Your task to perform on an android device: turn on the 12-hour format for clock Image 0: 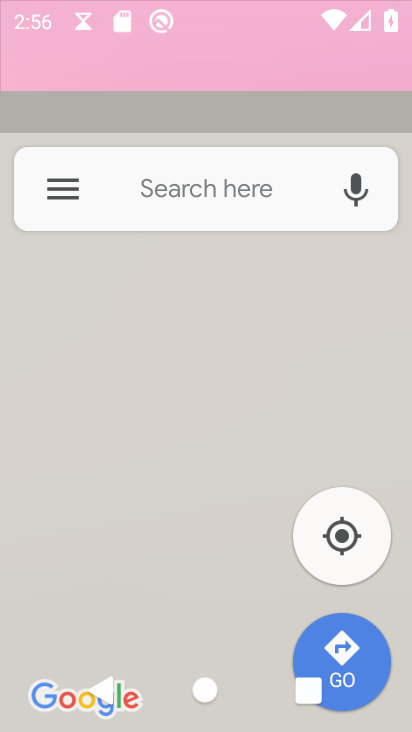
Step 0: click (403, 177)
Your task to perform on an android device: turn on the 12-hour format for clock Image 1: 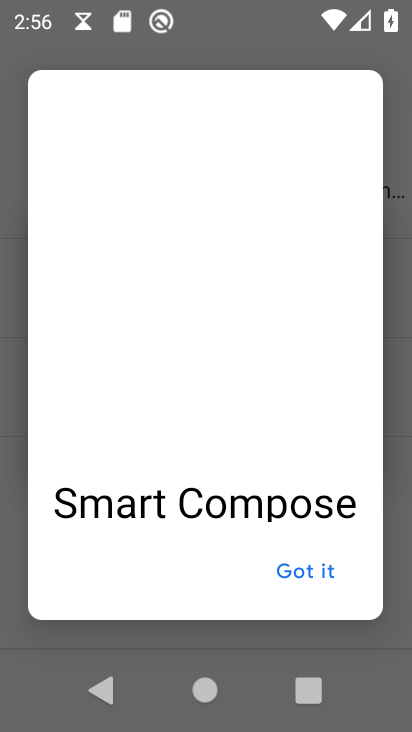
Step 1: press home button
Your task to perform on an android device: turn on the 12-hour format for clock Image 2: 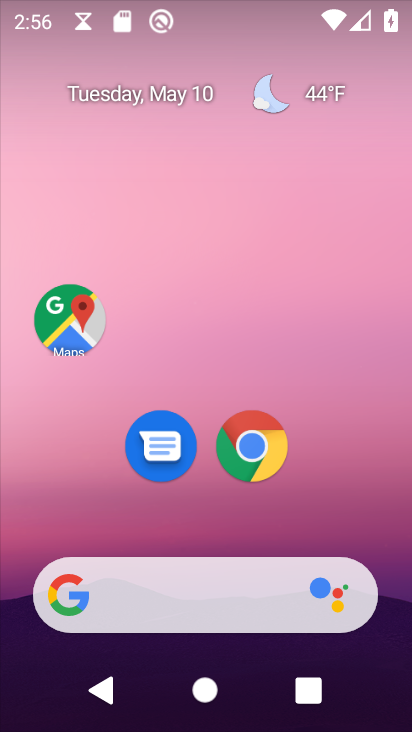
Step 2: drag from (358, 510) to (381, 62)
Your task to perform on an android device: turn on the 12-hour format for clock Image 3: 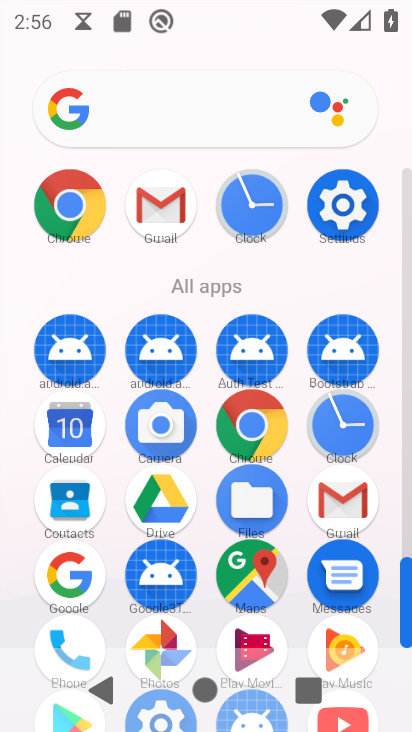
Step 3: click (257, 211)
Your task to perform on an android device: turn on the 12-hour format for clock Image 4: 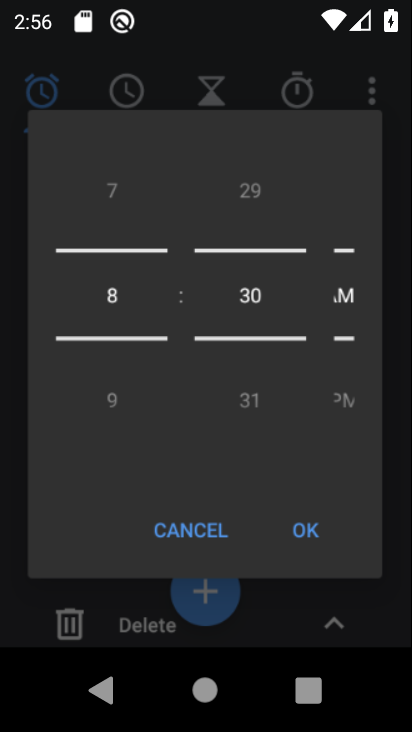
Step 4: click (192, 526)
Your task to perform on an android device: turn on the 12-hour format for clock Image 5: 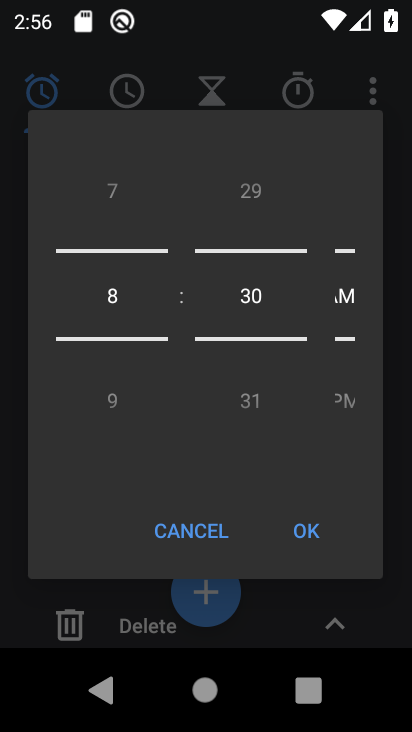
Step 5: click (377, 96)
Your task to perform on an android device: turn on the 12-hour format for clock Image 6: 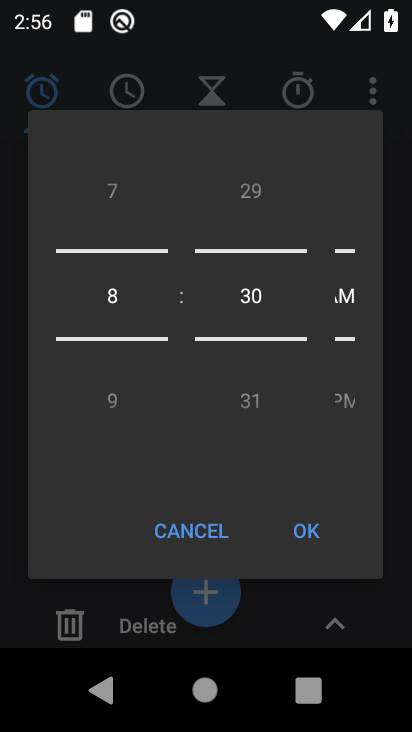
Step 6: click (189, 528)
Your task to perform on an android device: turn on the 12-hour format for clock Image 7: 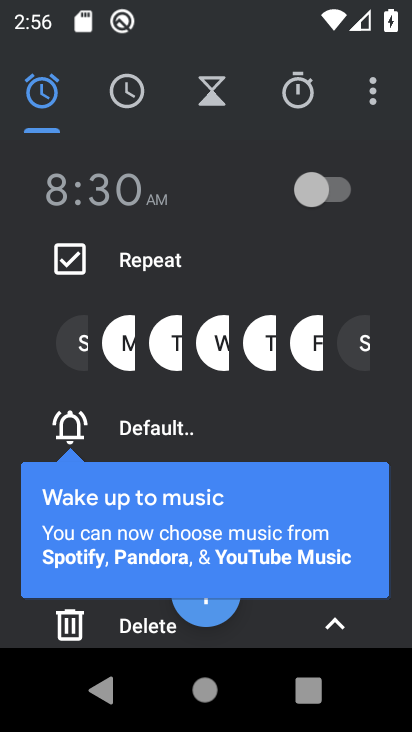
Step 7: click (385, 85)
Your task to perform on an android device: turn on the 12-hour format for clock Image 8: 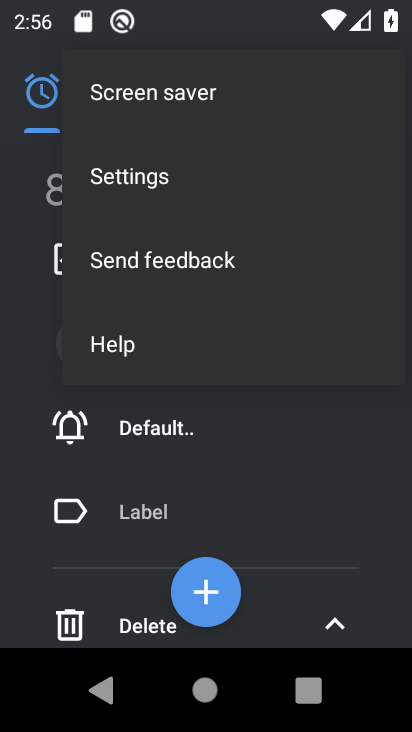
Step 8: click (155, 185)
Your task to perform on an android device: turn on the 12-hour format for clock Image 9: 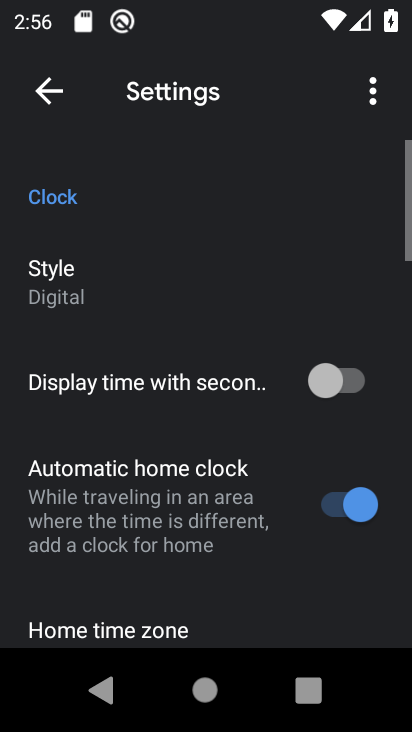
Step 9: drag from (216, 513) to (265, 169)
Your task to perform on an android device: turn on the 12-hour format for clock Image 10: 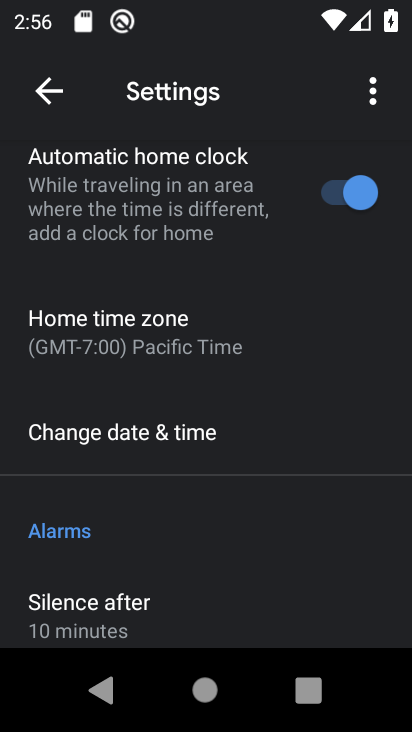
Step 10: drag from (181, 521) to (215, 284)
Your task to perform on an android device: turn on the 12-hour format for clock Image 11: 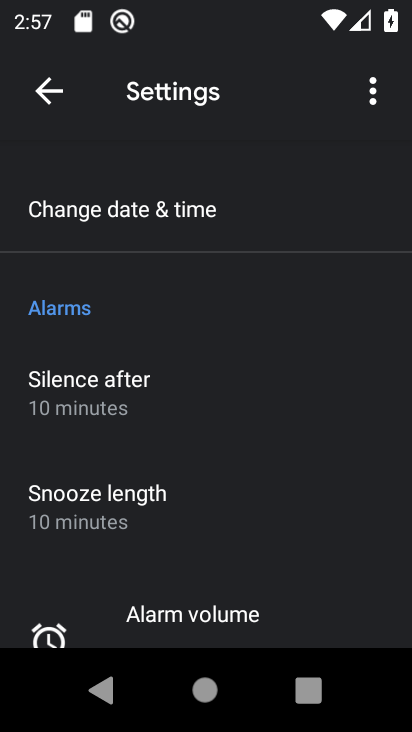
Step 11: click (156, 216)
Your task to perform on an android device: turn on the 12-hour format for clock Image 12: 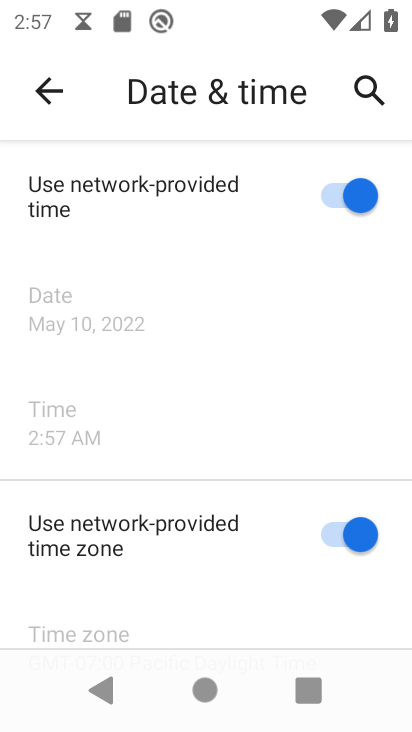
Step 12: drag from (112, 562) to (183, 207)
Your task to perform on an android device: turn on the 12-hour format for clock Image 13: 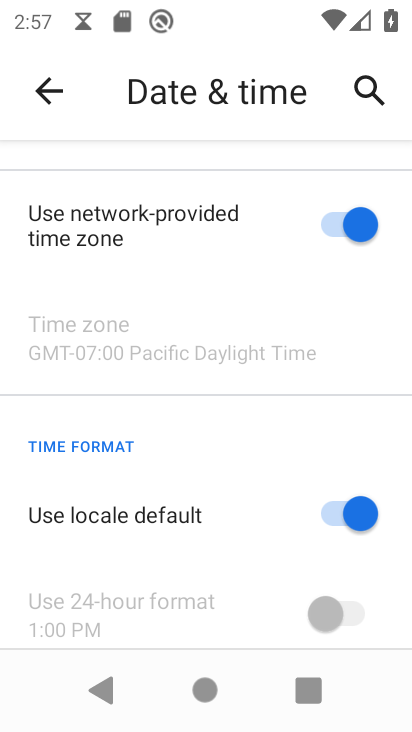
Step 13: drag from (242, 541) to (298, 231)
Your task to perform on an android device: turn on the 12-hour format for clock Image 14: 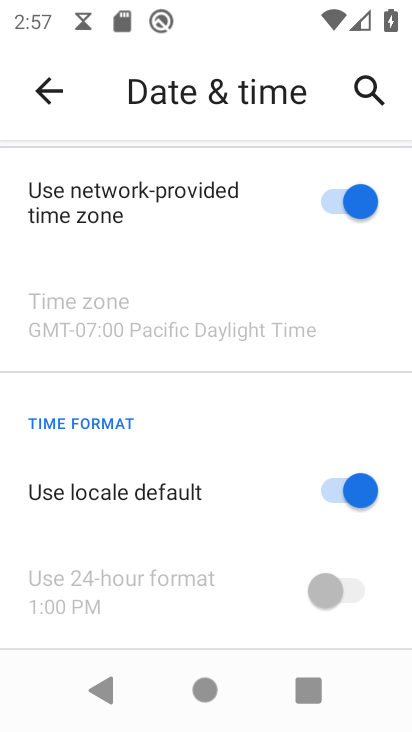
Step 14: click (336, 485)
Your task to perform on an android device: turn on the 12-hour format for clock Image 15: 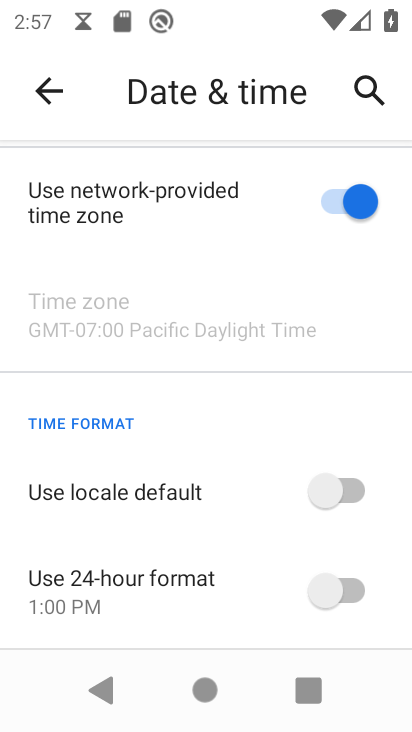
Step 15: task complete